Your task to perform on an android device: check storage Image 0: 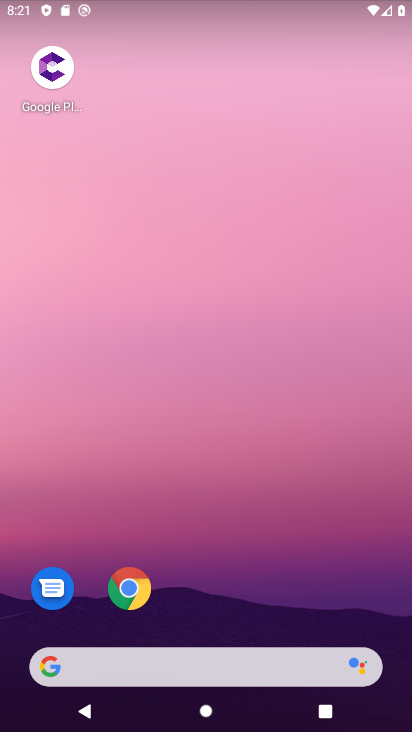
Step 0: drag from (267, 625) to (264, 212)
Your task to perform on an android device: check storage Image 1: 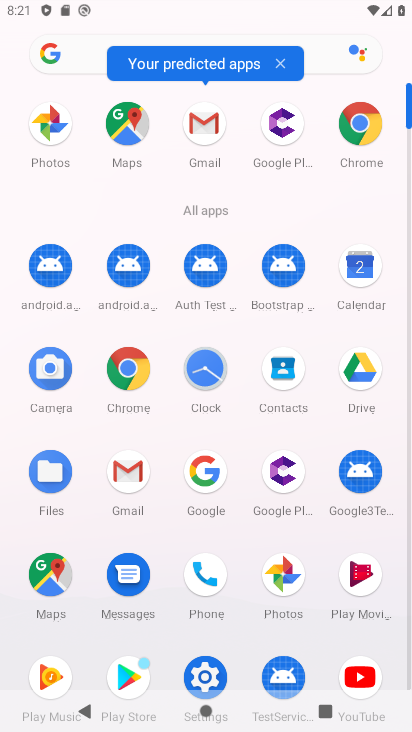
Step 1: drag from (214, 231) to (227, 76)
Your task to perform on an android device: check storage Image 2: 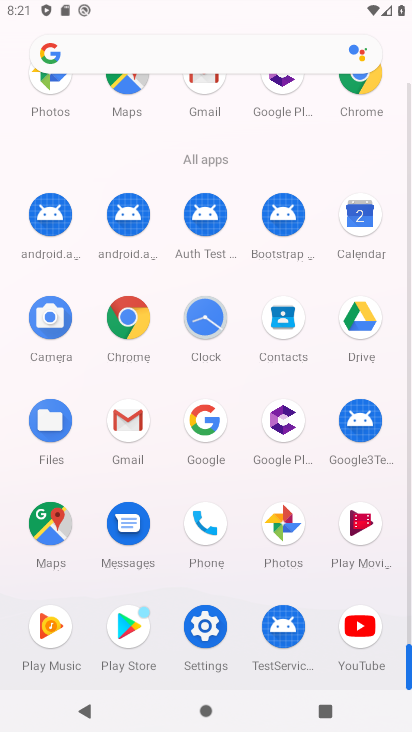
Step 2: click (200, 618)
Your task to perform on an android device: check storage Image 3: 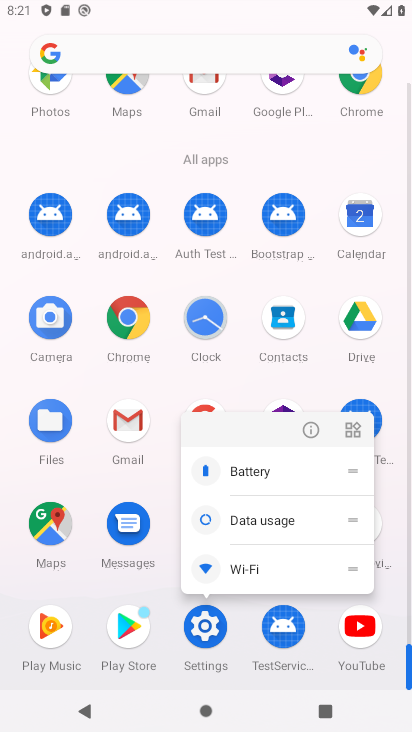
Step 3: click (199, 618)
Your task to perform on an android device: check storage Image 4: 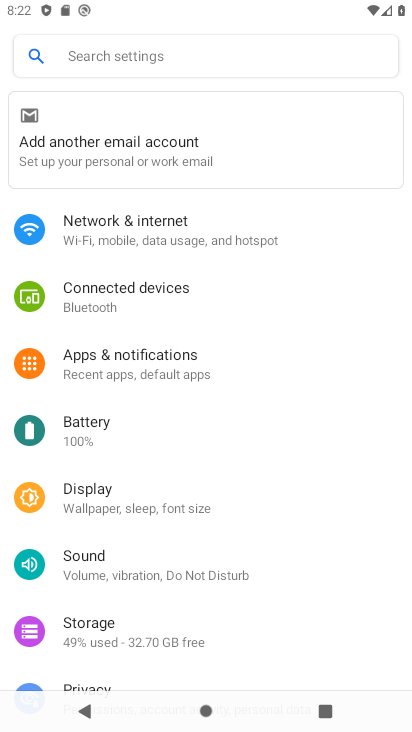
Step 4: click (142, 634)
Your task to perform on an android device: check storage Image 5: 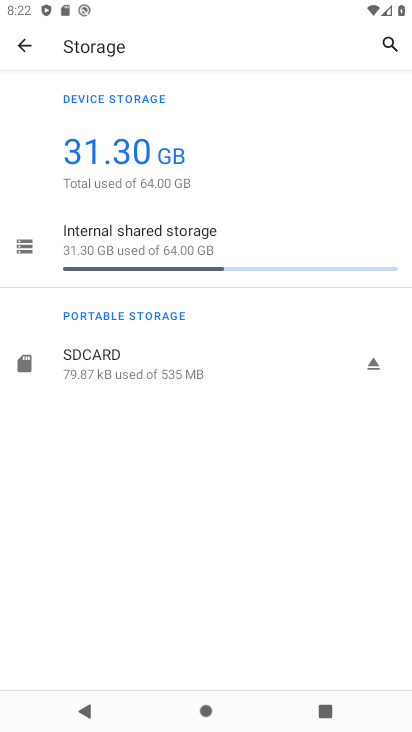
Step 5: task complete